Your task to perform on an android device: Open Google Chrome and click the shortcut for Amazon.com Image 0: 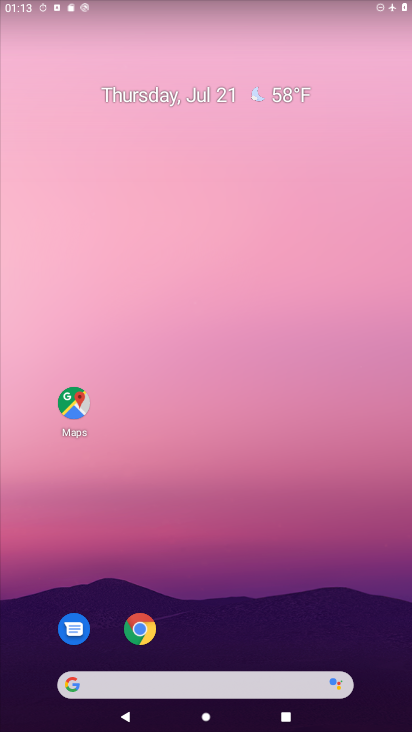
Step 0: click (133, 633)
Your task to perform on an android device: Open Google Chrome and click the shortcut for Amazon.com Image 1: 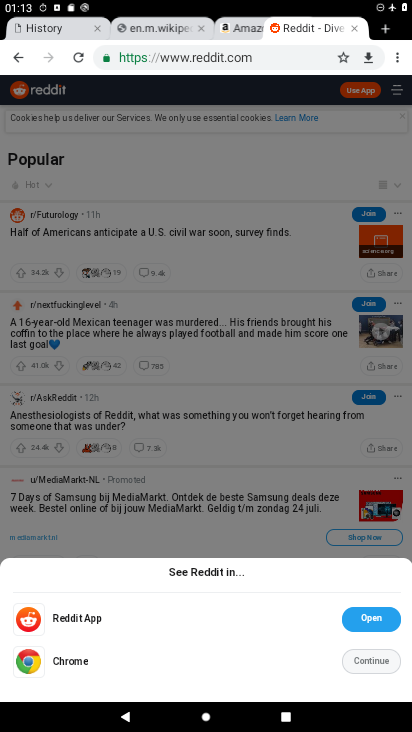
Step 1: click (380, 29)
Your task to perform on an android device: Open Google Chrome and click the shortcut for Amazon.com Image 2: 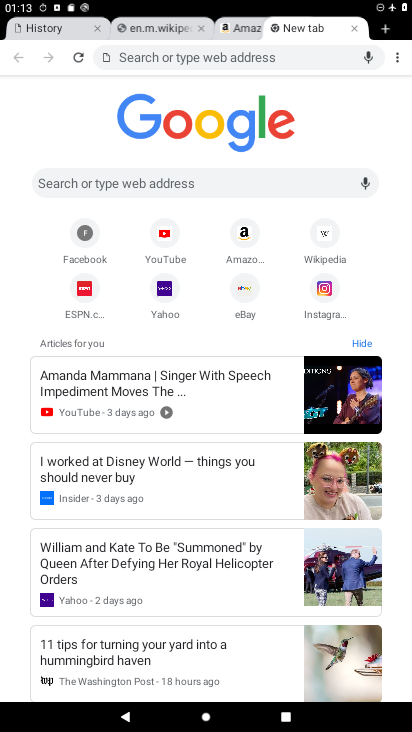
Step 2: click (249, 229)
Your task to perform on an android device: Open Google Chrome and click the shortcut for Amazon.com Image 3: 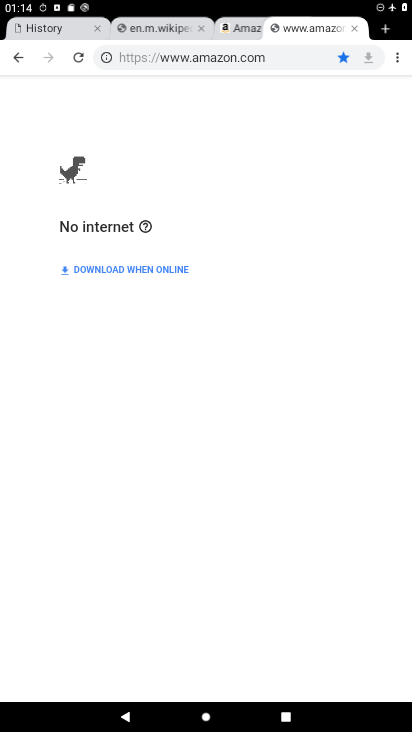
Step 3: task complete